Your task to perform on an android device: How much does a 2x4x8 board cost at Lowes? Image 0: 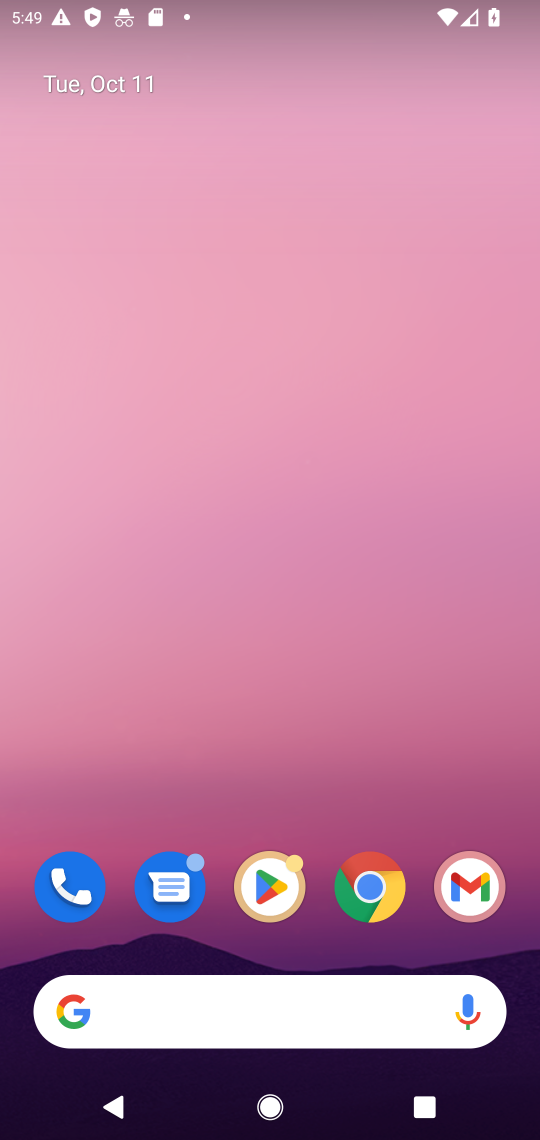
Step 0: click (243, 1017)
Your task to perform on an android device: How much does a 2x4x8 board cost at Lowes? Image 1: 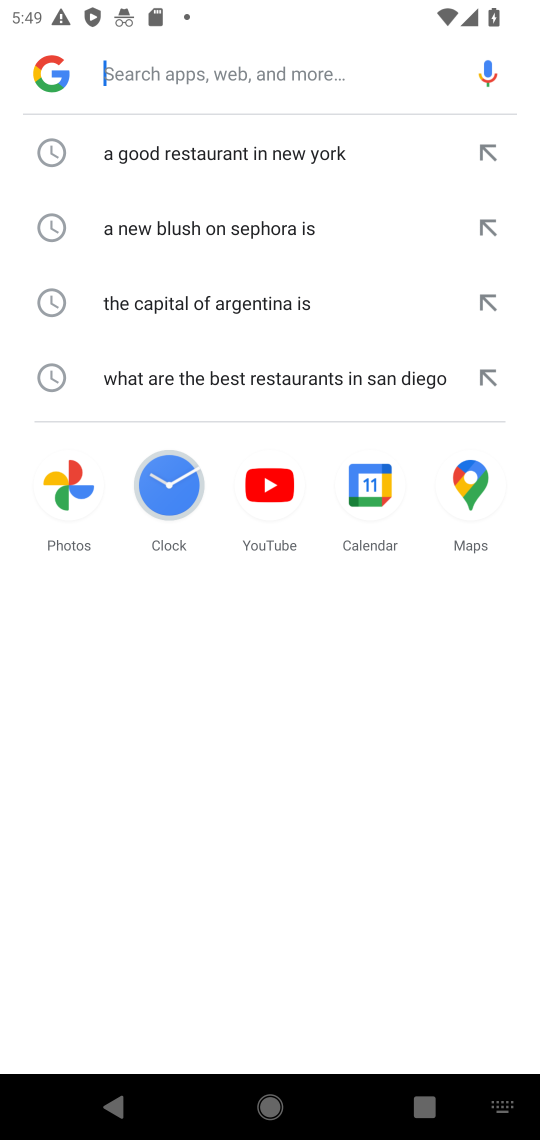
Step 1: type "How much does a 2x4x8 board cost at Lowes?"
Your task to perform on an android device: How much does a 2x4x8 board cost at Lowes? Image 2: 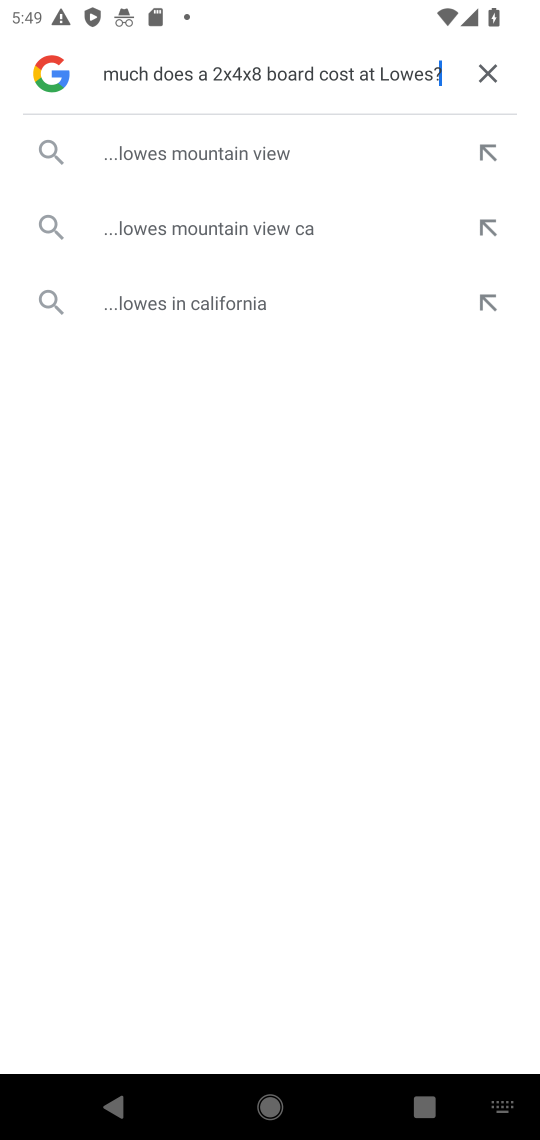
Step 2: click (243, 302)
Your task to perform on an android device: How much does a 2x4x8 board cost at Lowes? Image 3: 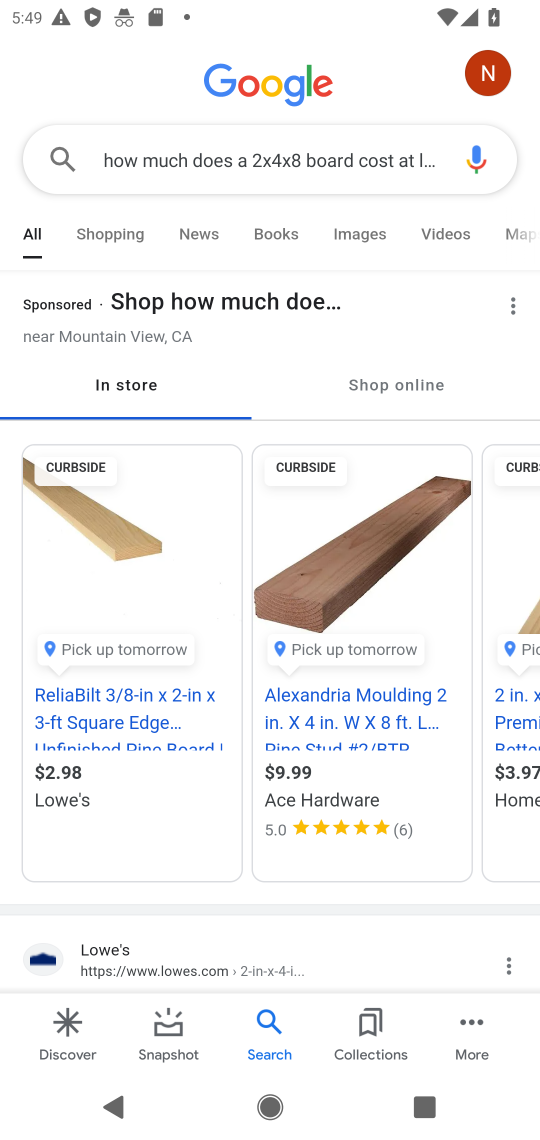
Step 3: task complete